Your task to perform on an android device: Go to wifi settings Image 0: 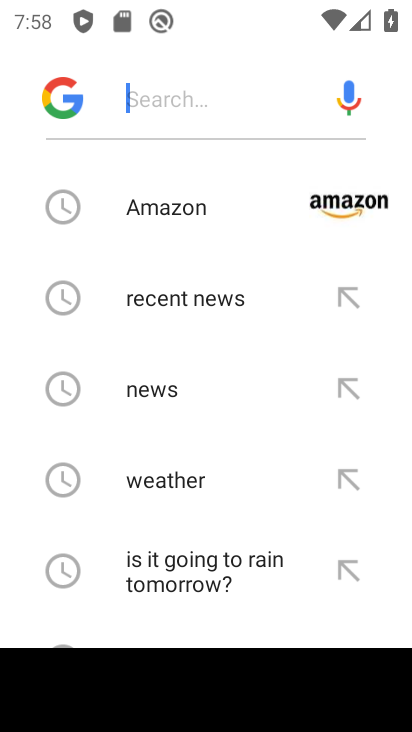
Step 0: press home button
Your task to perform on an android device: Go to wifi settings Image 1: 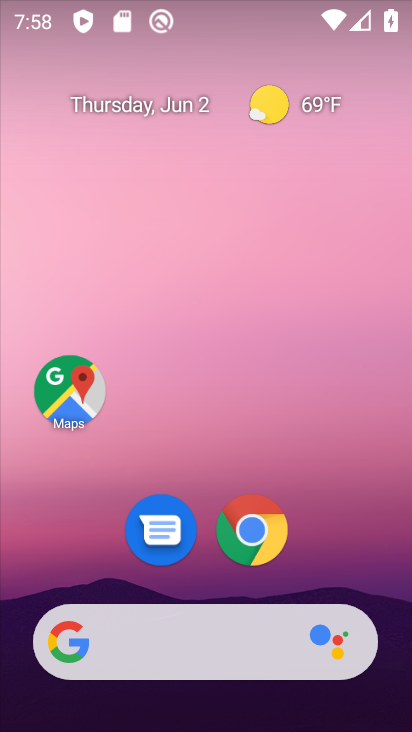
Step 1: drag from (190, 597) to (138, 147)
Your task to perform on an android device: Go to wifi settings Image 2: 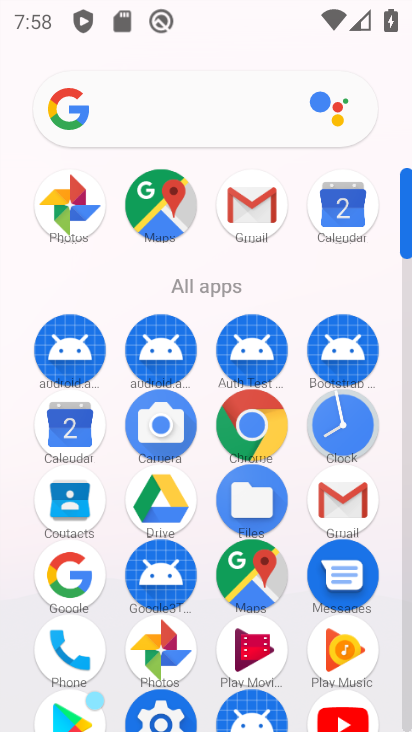
Step 2: click (185, 710)
Your task to perform on an android device: Go to wifi settings Image 3: 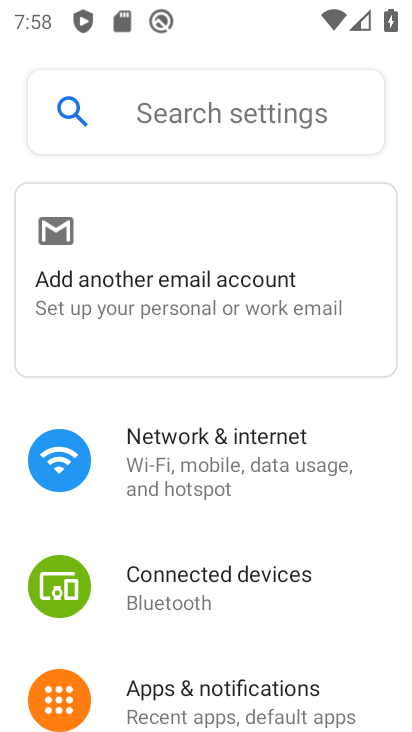
Step 3: click (170, 465)
Your task to perform on an android device: Go to wifi settings Image 4: 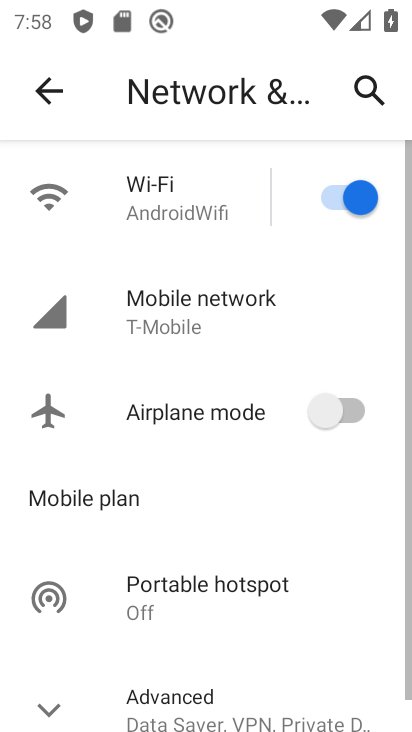
Step 4: click (158, 214)
Your task to perform on an android device: Go to wifi settings Image 5: 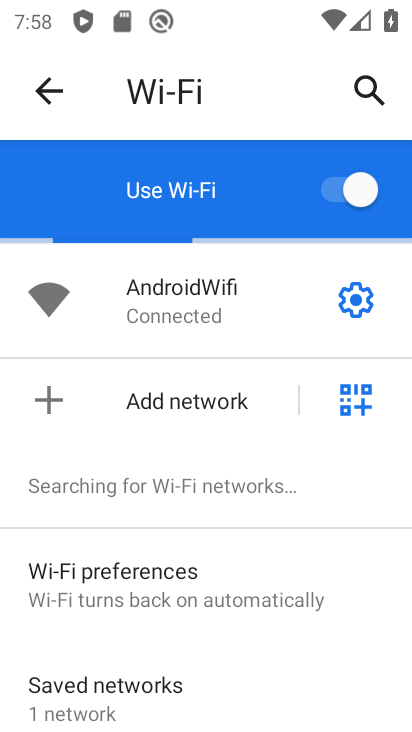
Step 5: task complete